Your task to perform on an android device: Check the weather Image 0: 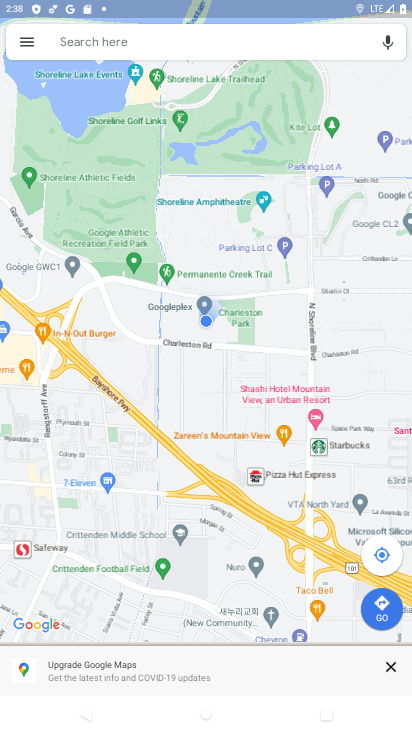
Step 0: press home button
Your task to perform on an android device: Check the weather Image 1: 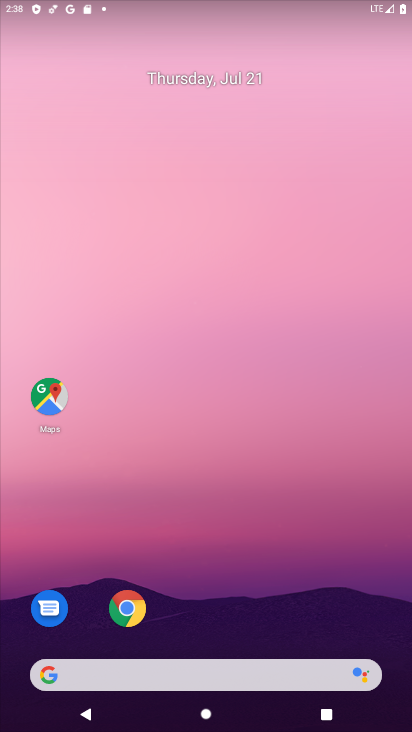
Step 1: click (218, 660)
Your task to perform on an android device: Check the weather Image 2: 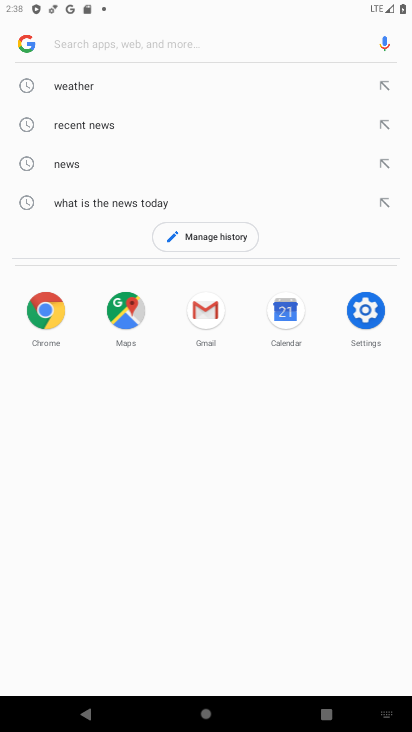
Step 2: click (50, 88)
Your task to perform on an android device: Check the weather Image 3: 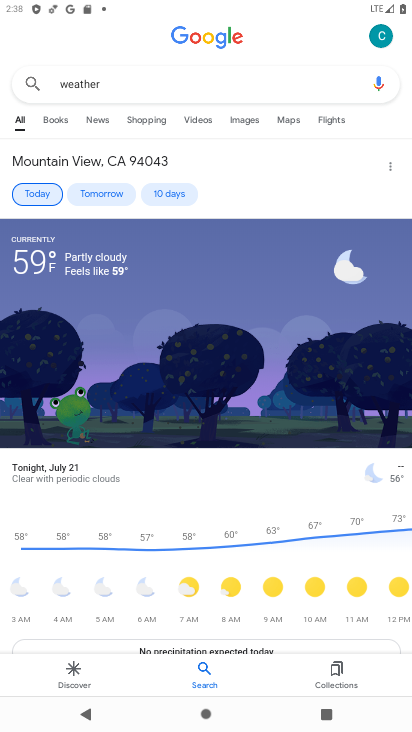
Step 3: task complete